Your task to perform on an android device: install app "File Manager" Image 0: 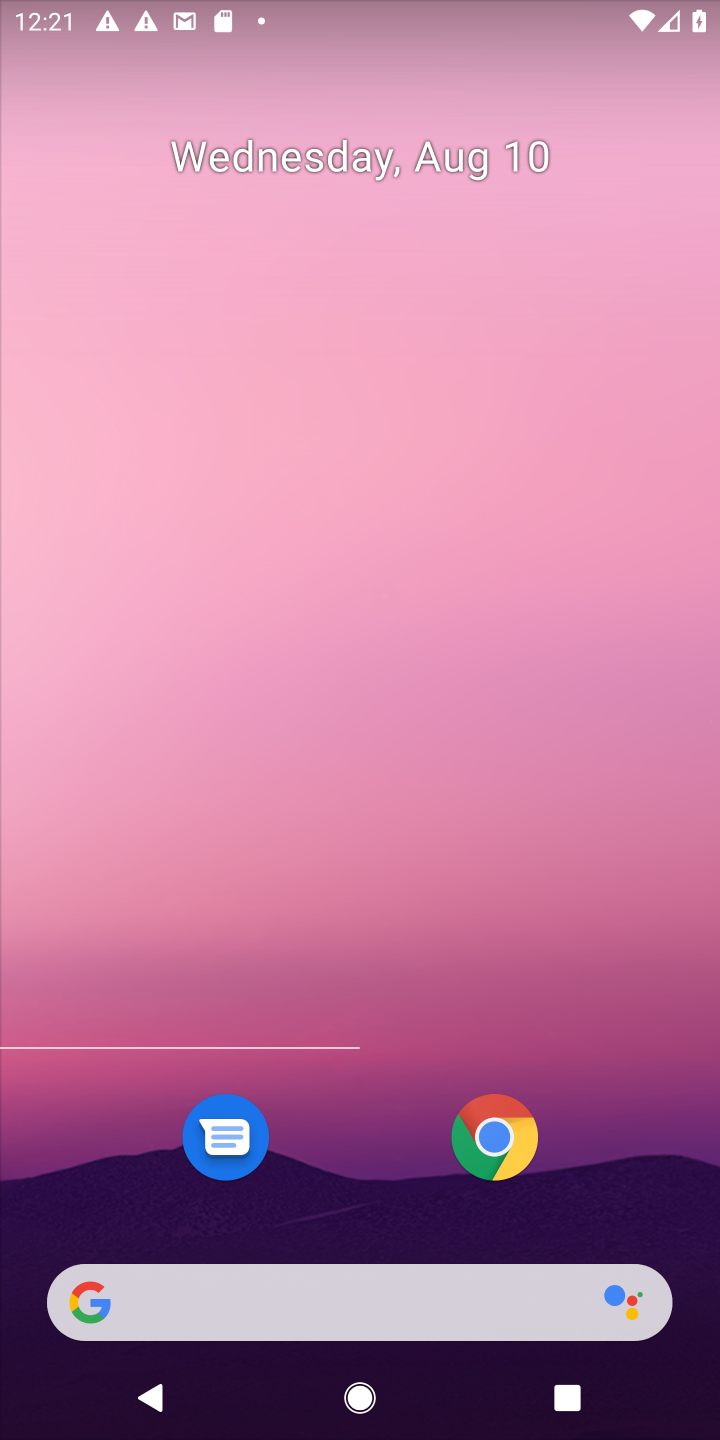
Step 0: press home button
Your task to perform on an android device: install app "File Manager" Image 1: 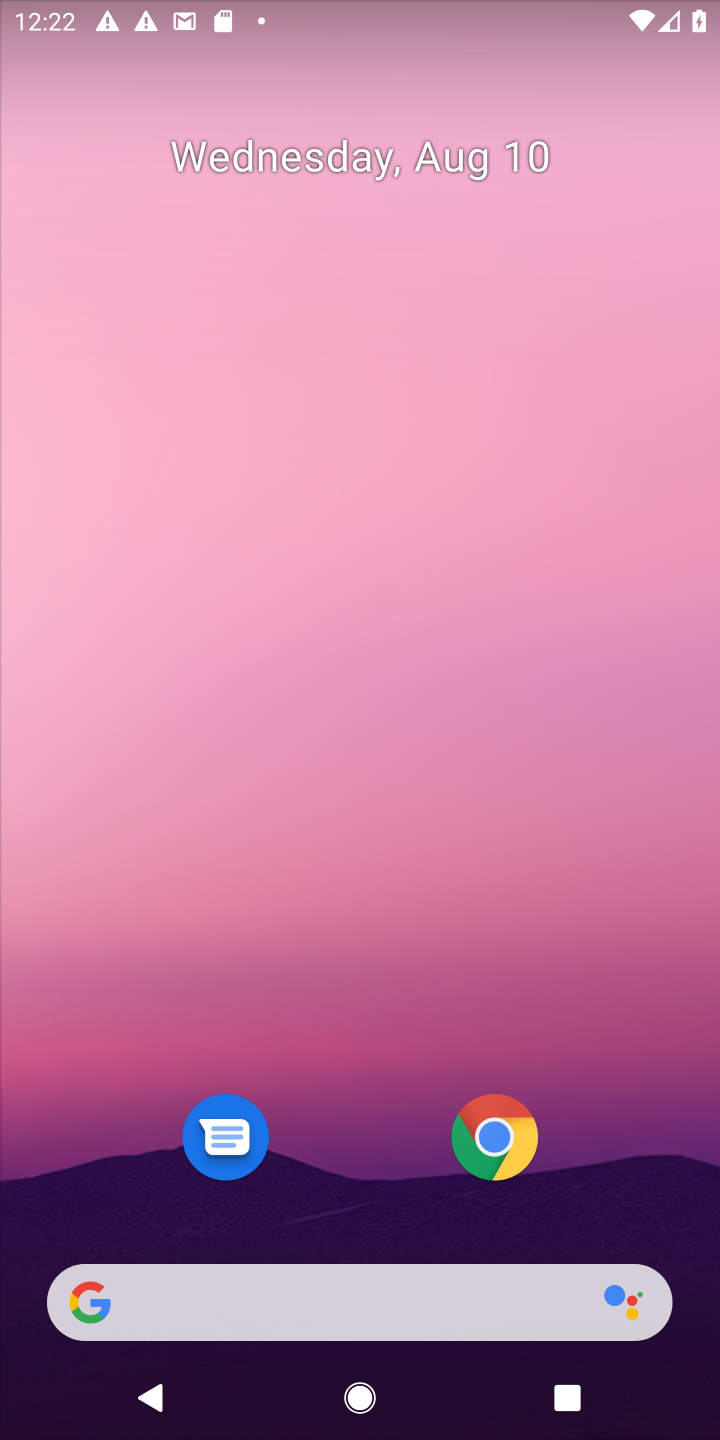
Step 1: drag from (374, 1209) to (325, 187)
Your task to perform on an android device: install app "File Manager" Image 2: 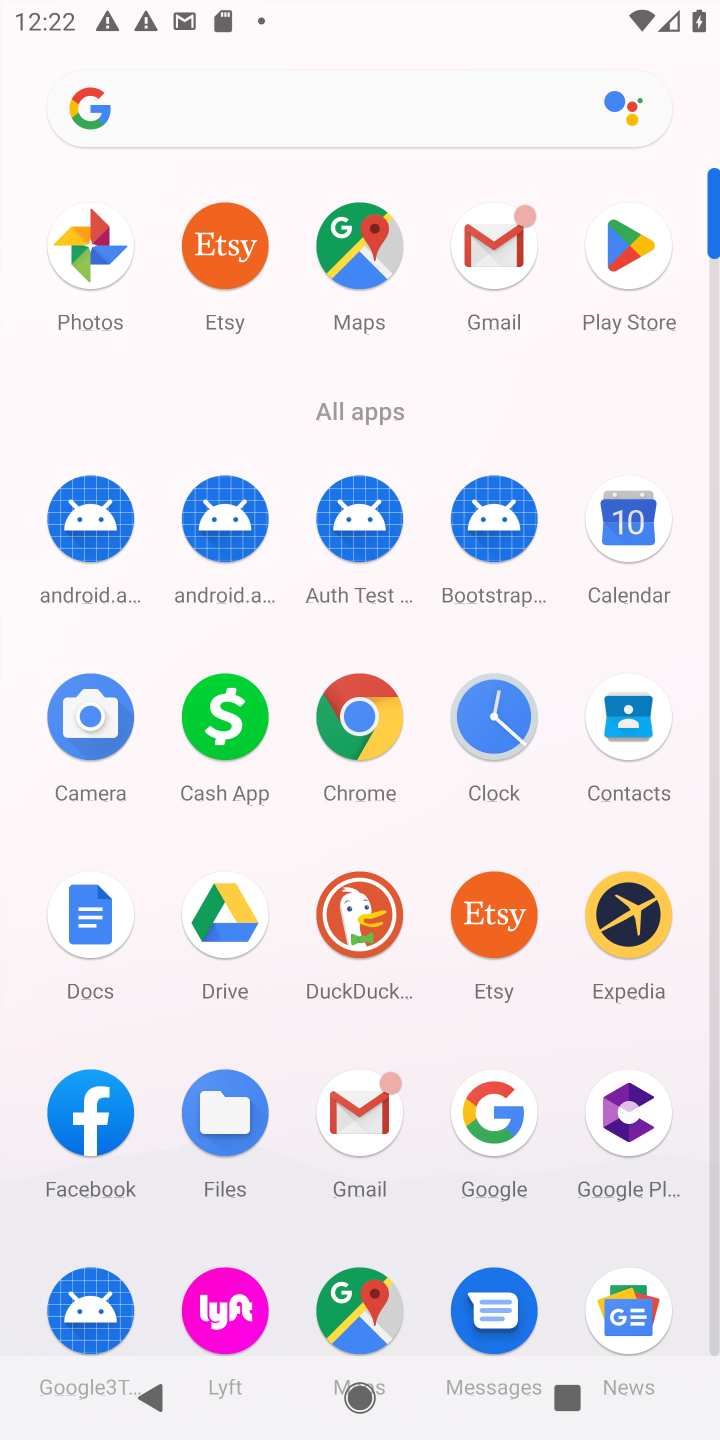
Step 2: click (630, 246)
Your task to perform on an android device: install app "File Manager" Image 3: 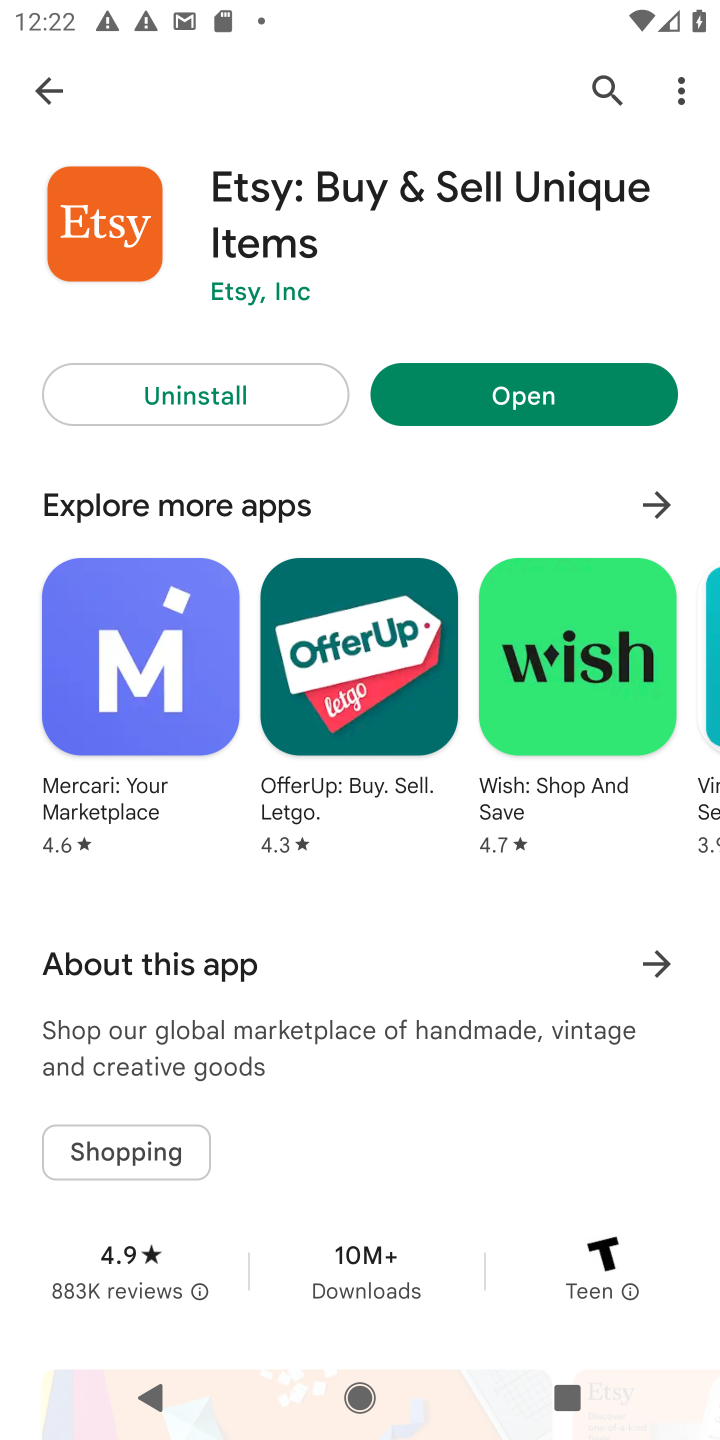
Step 3: click (587, 77)
Your task to perform on an android device: install app "File Manager" Image 4: 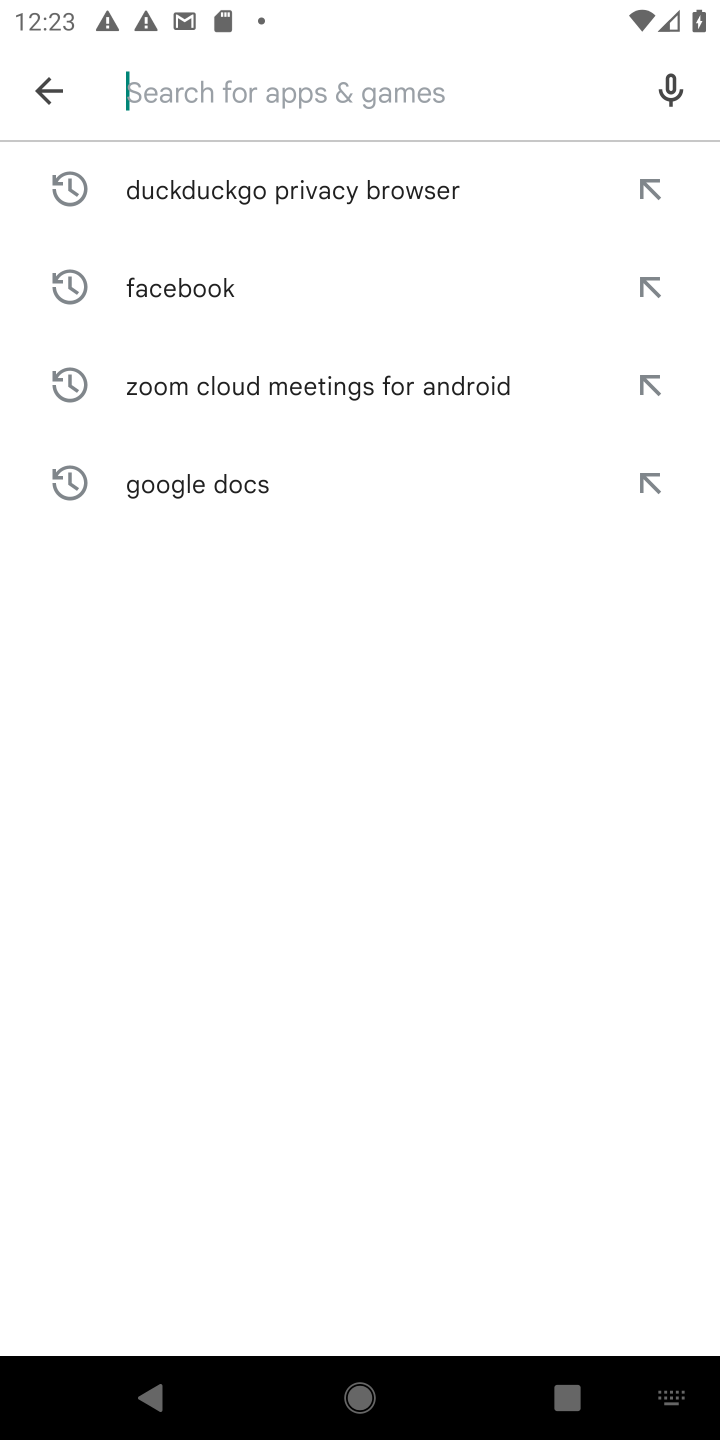
Step 4: type "File Manager"
Your task to perform on an android device: install app "File Manager" Image 5: 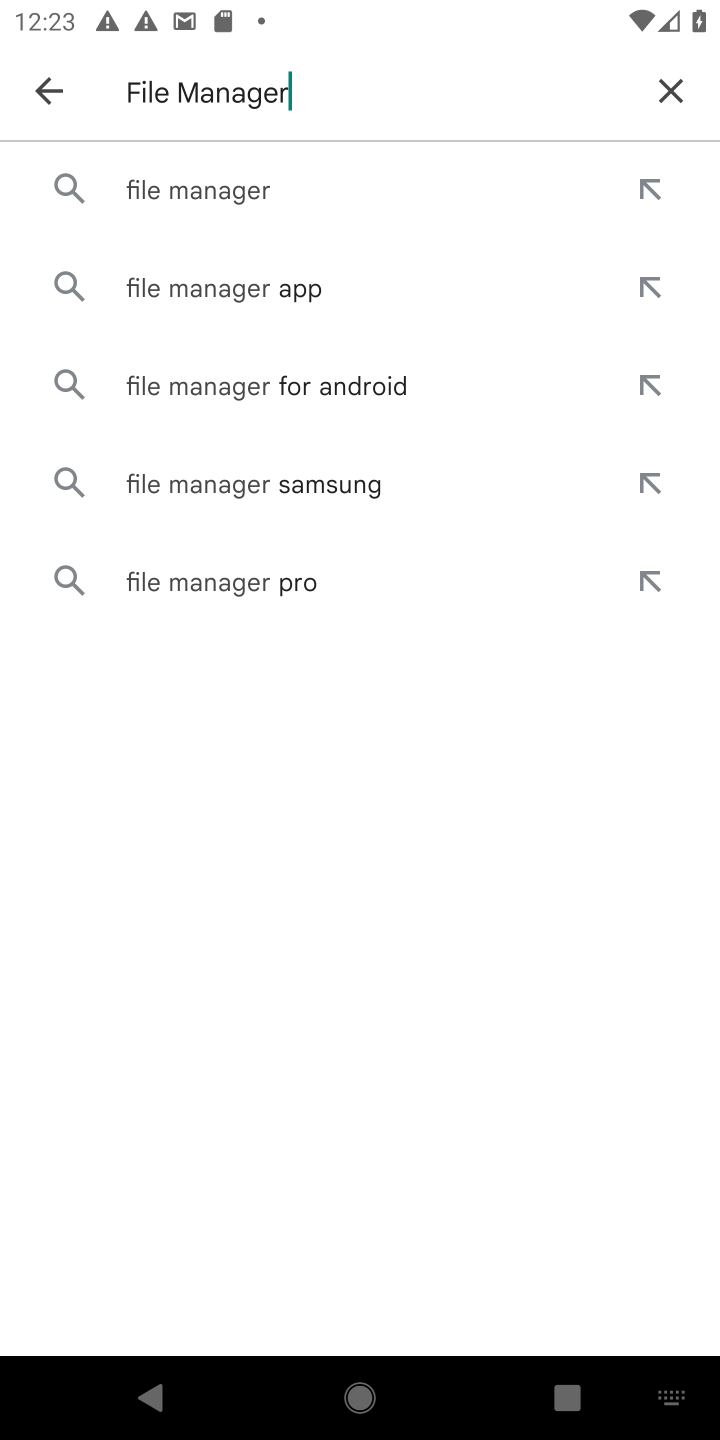
Step 5: click (275, 169)
Your task to perform on an android device: install app "File Manager" Image 6: 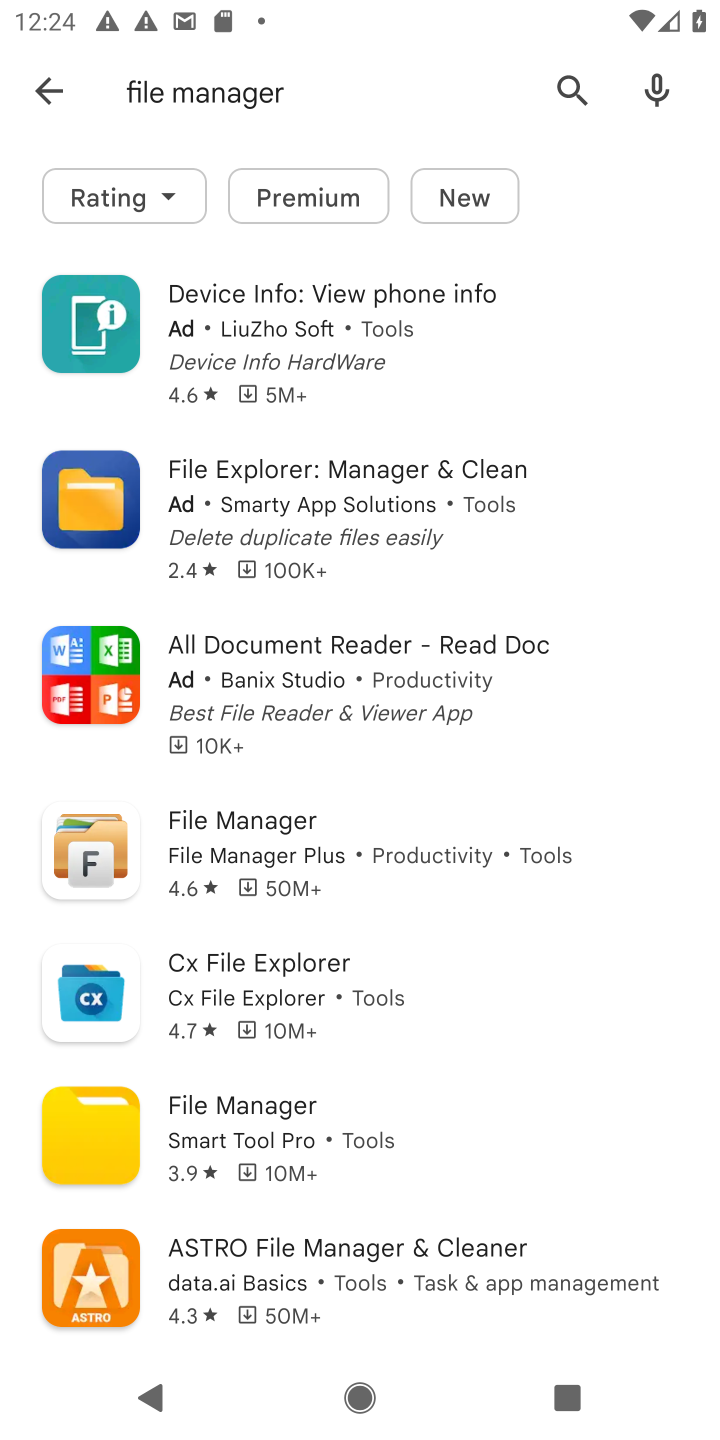
Step 6: click (301, 1130)
Your task to perform on an android device: install app "File Manager" Image 7: 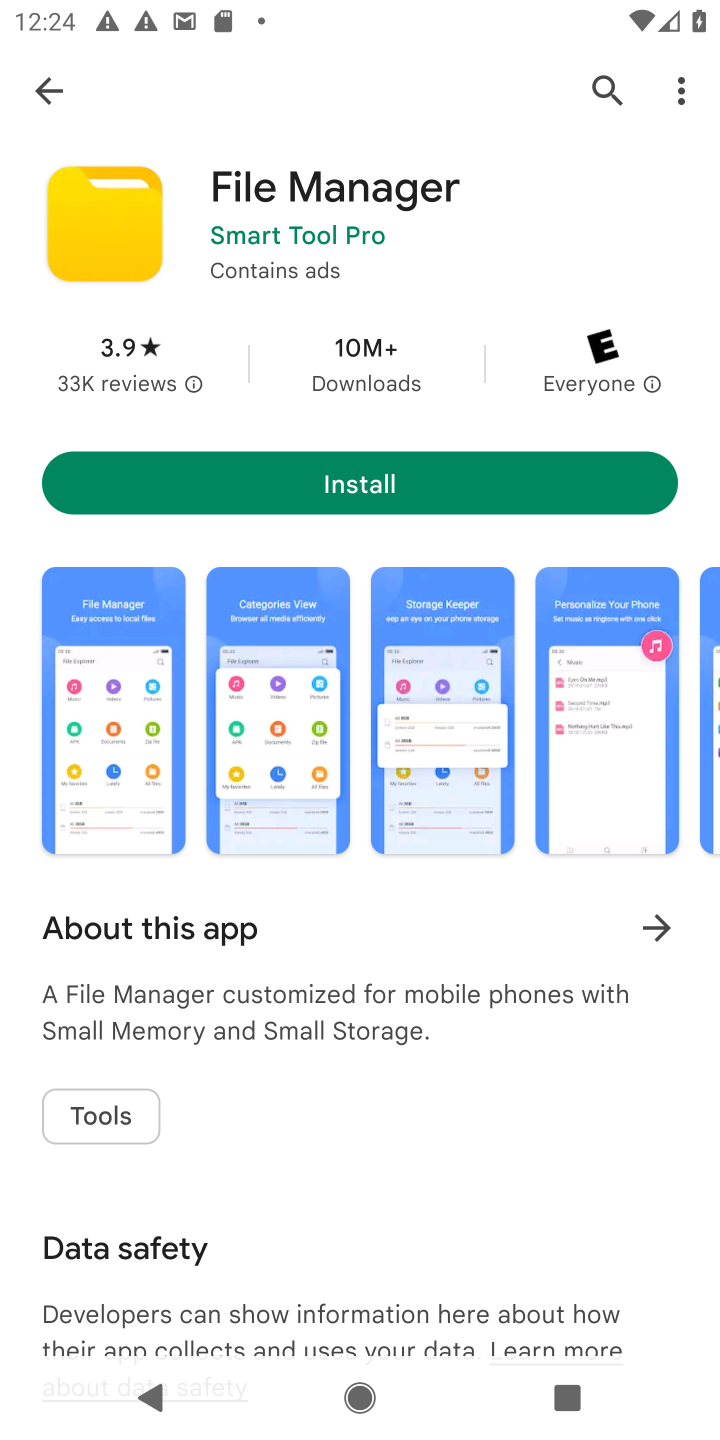
Step 7: click (391, 483)
Your task to perform on an android device: install app "File Manager" Image 8: 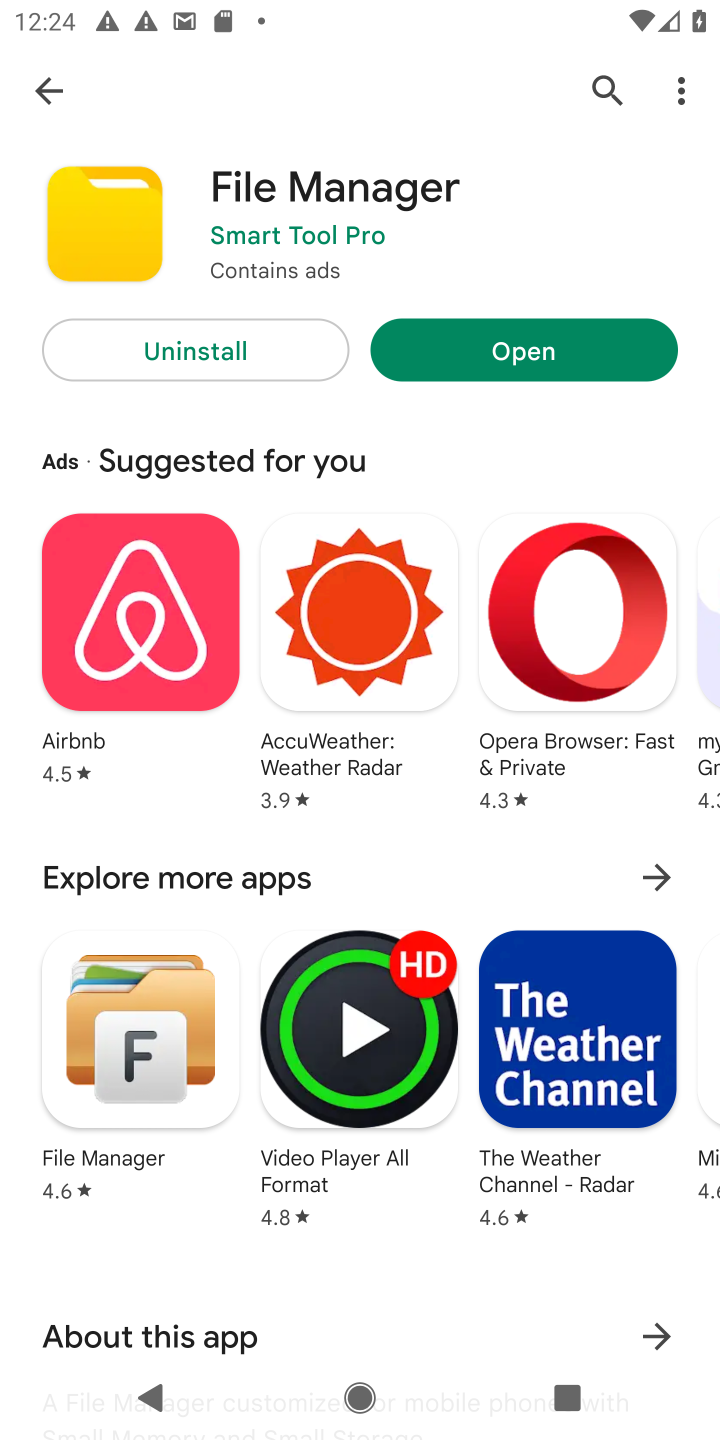
Step 8: click (542, 334)
Your task to perform on an android device: install app "File Manager" Image 9: 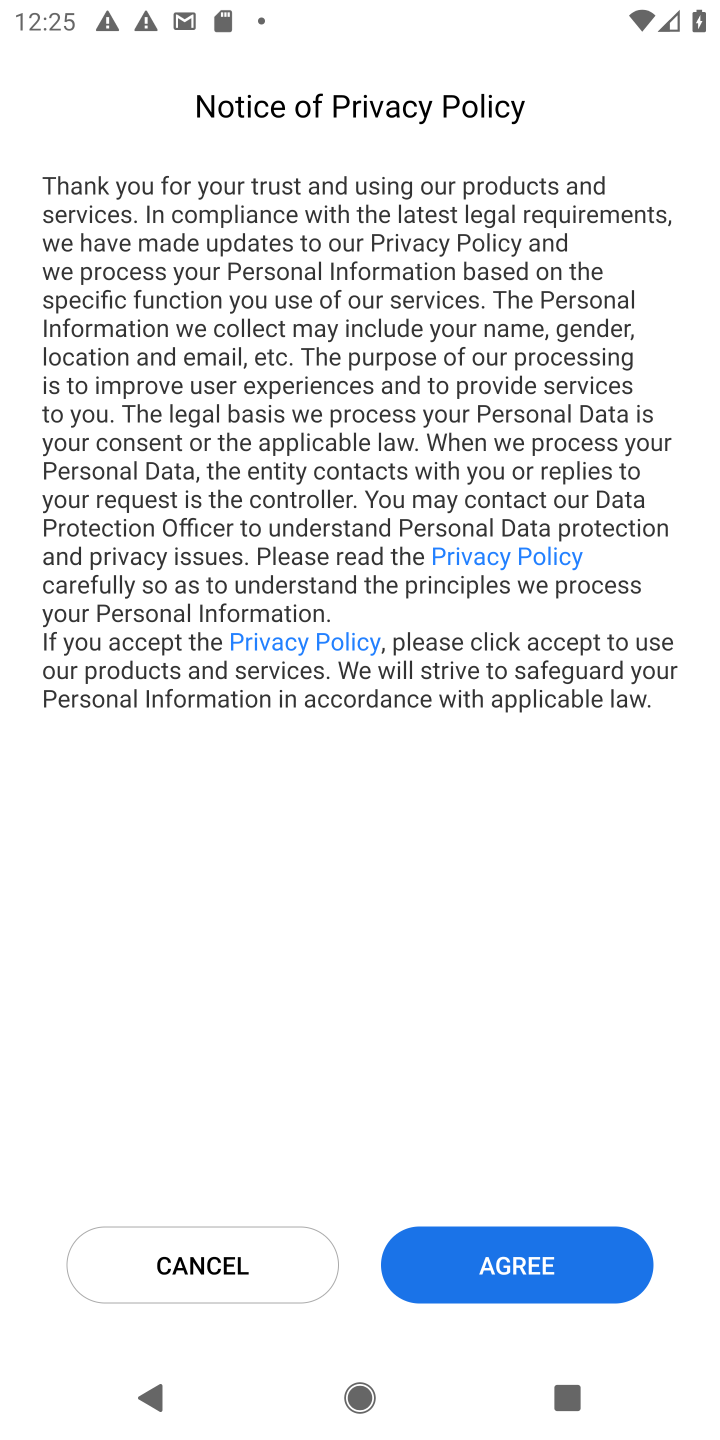
Step 9: task complete